Your task to perform on an android device: check the backup settings in the google photos Image 0: 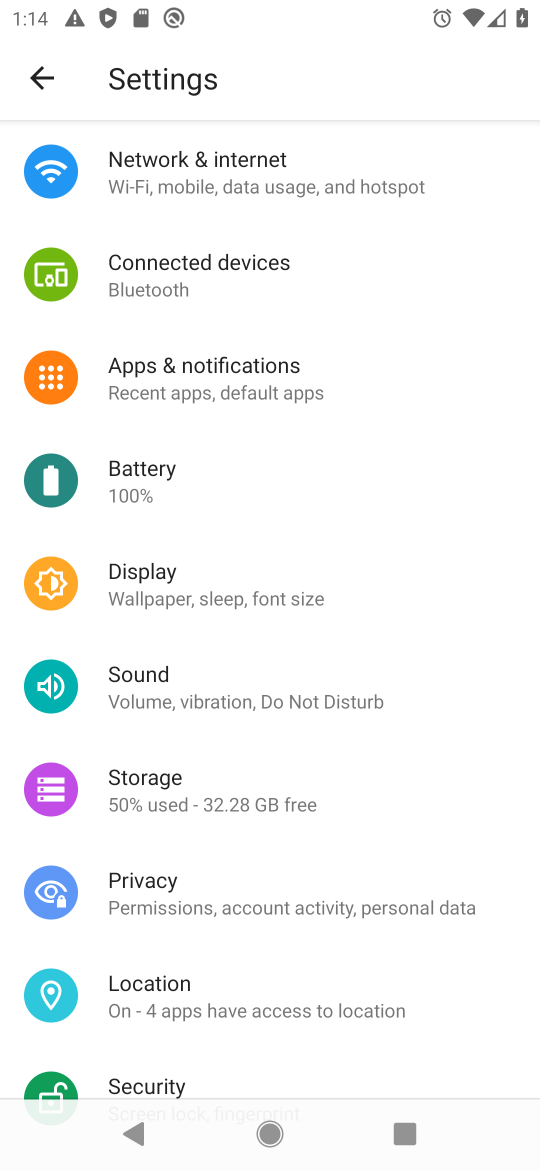
Step 0: task complete